Your task to perform on an android device: manage bookmarks in the chrome app Image 0: 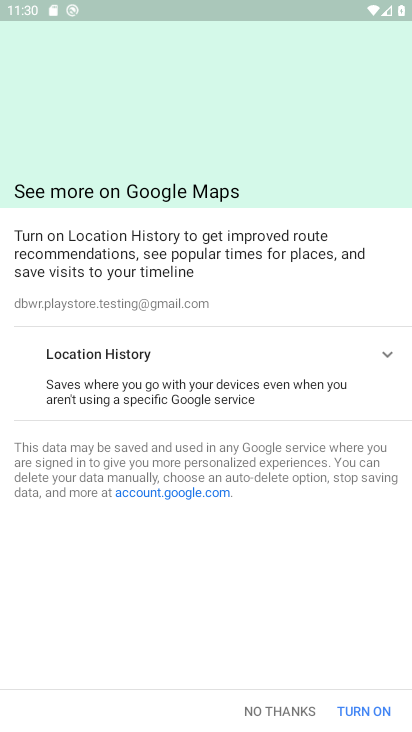
Step 0: press home button
Your task to perform on an android device: manage bookmarks in the chrome app Image 1: 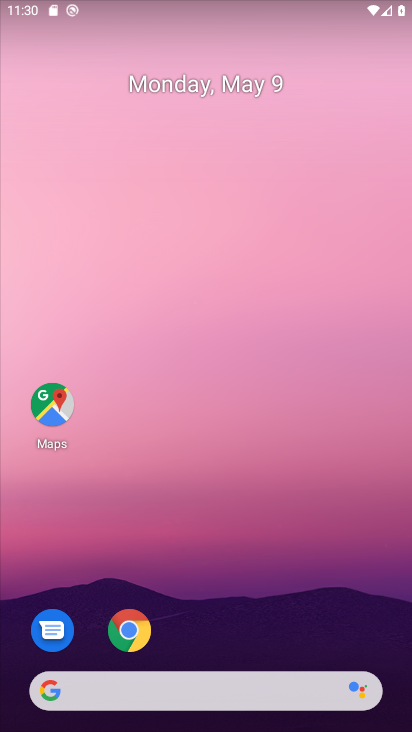
Step 1: click (134, 631)
Your task to perform on an android device: manage bookmarks in the chrome app Image 2: 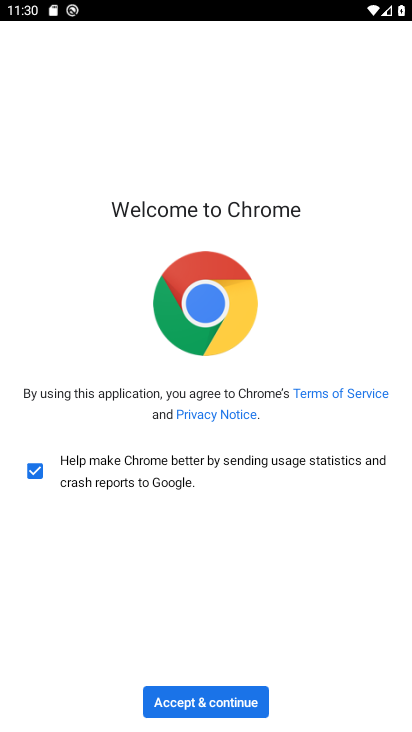
Step 2: click (220, 702)
Your task to perform on an android device: manage bookmarks in the chrome app Image 3: 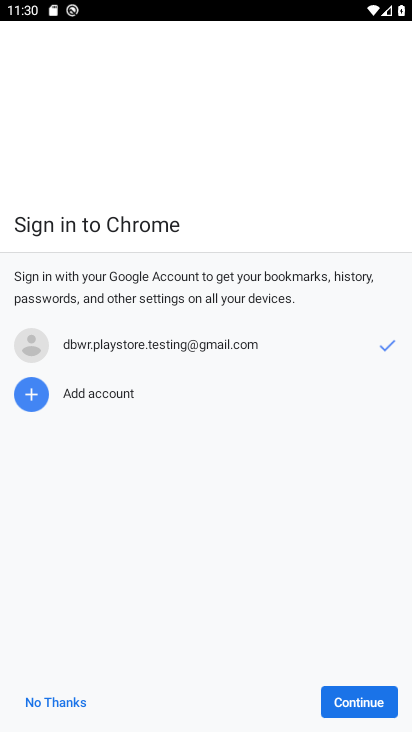
Step 3: click (365, 705)
Your task to perform on an android device: manage bookmarks in the chrome app Image 4: 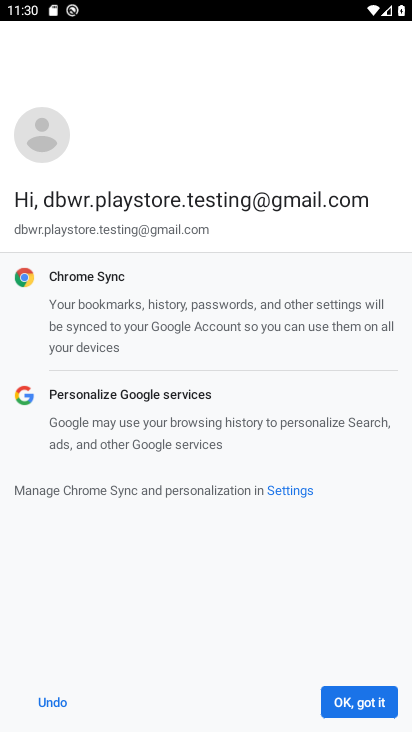
Step 4: click (362, 702)
Your task to perform on an android device: manage bookmarks in the chrome app Image 5: 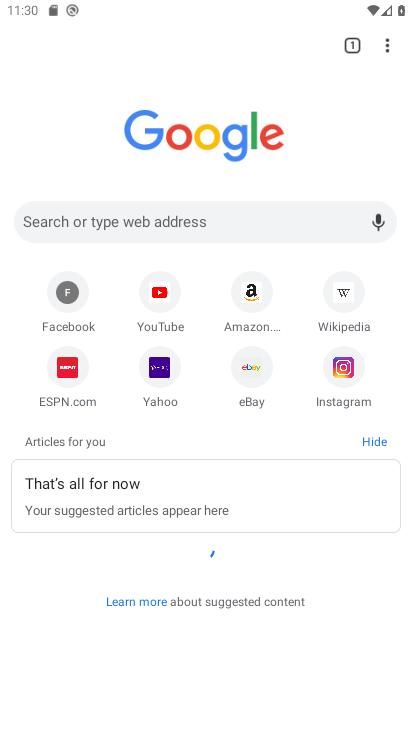
Step 5: task complete